Your task to perform on an android device: install app "Pluto TV - Live TV and Movies" Image 0: 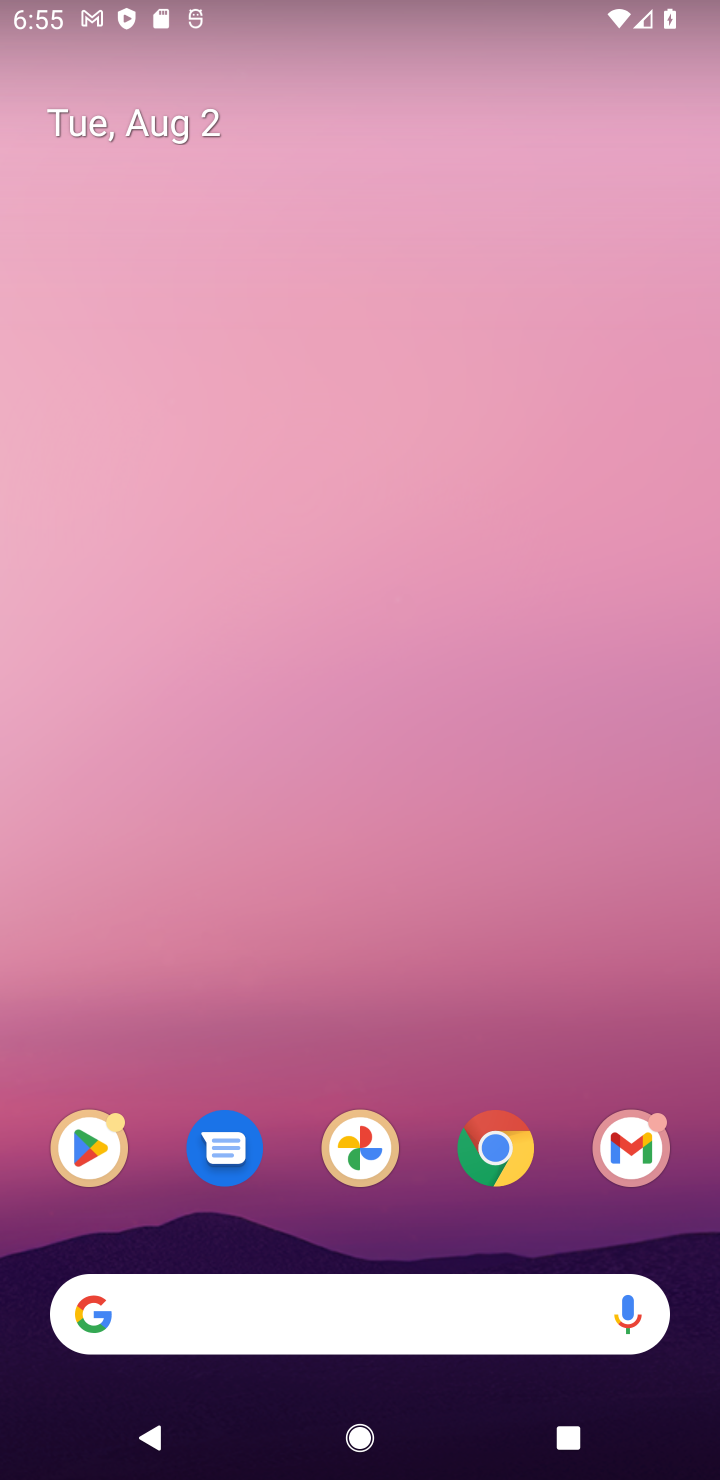
Step 0: drag from (543, 993) to (229, 31)
Your task to perform on an android device: install app "Pluto TV - Live TV and Movies" Image 1: 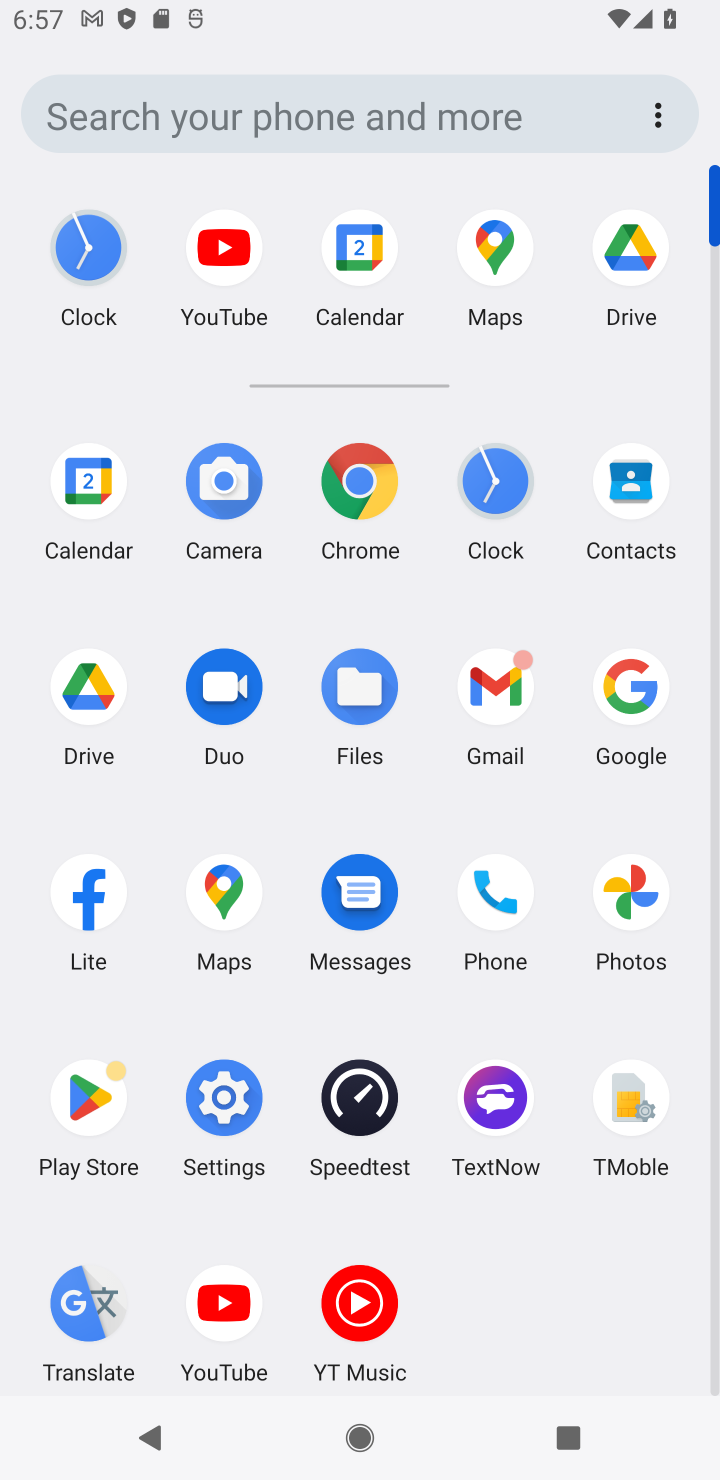
Step 1: click (88, 1091)
Your task to perform on an android device: install app "Pluto TV - Live TV and Movies" Image 2: 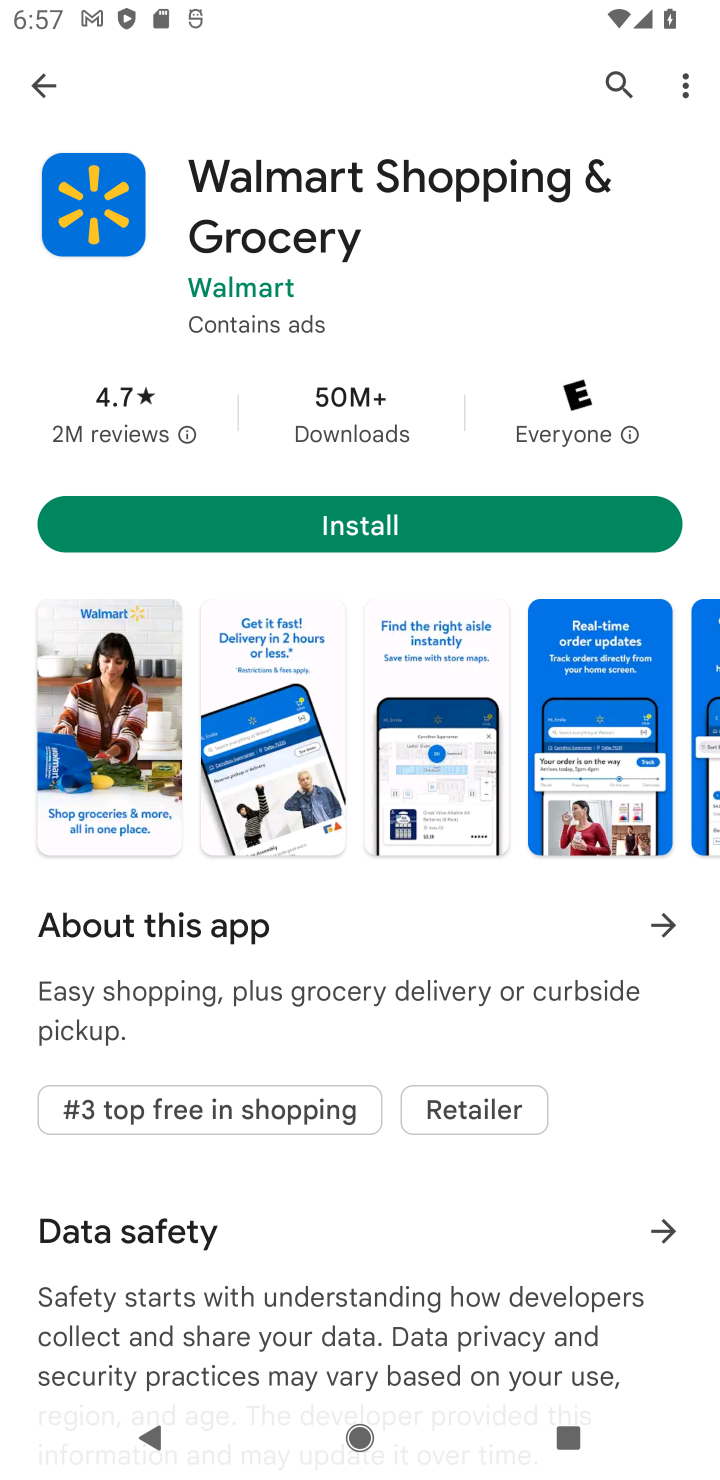
Step 2: press back button
Your task to perform on an android device: install app "Pluto TV - Live TV and Movies" Image 3: 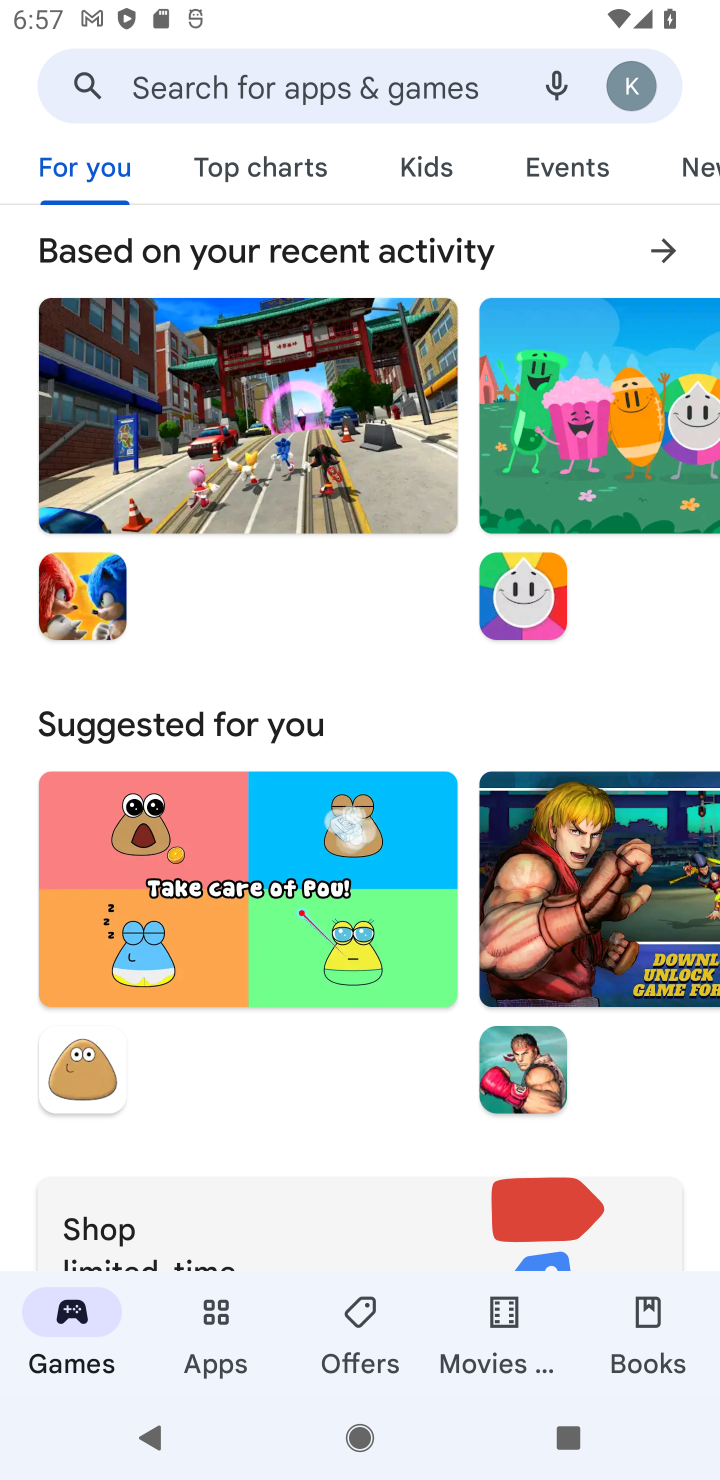
Step 3: click (289, 84)
Your task to perform on an android device: install app "Pluto TV - Live TV and Movies" Image 4: 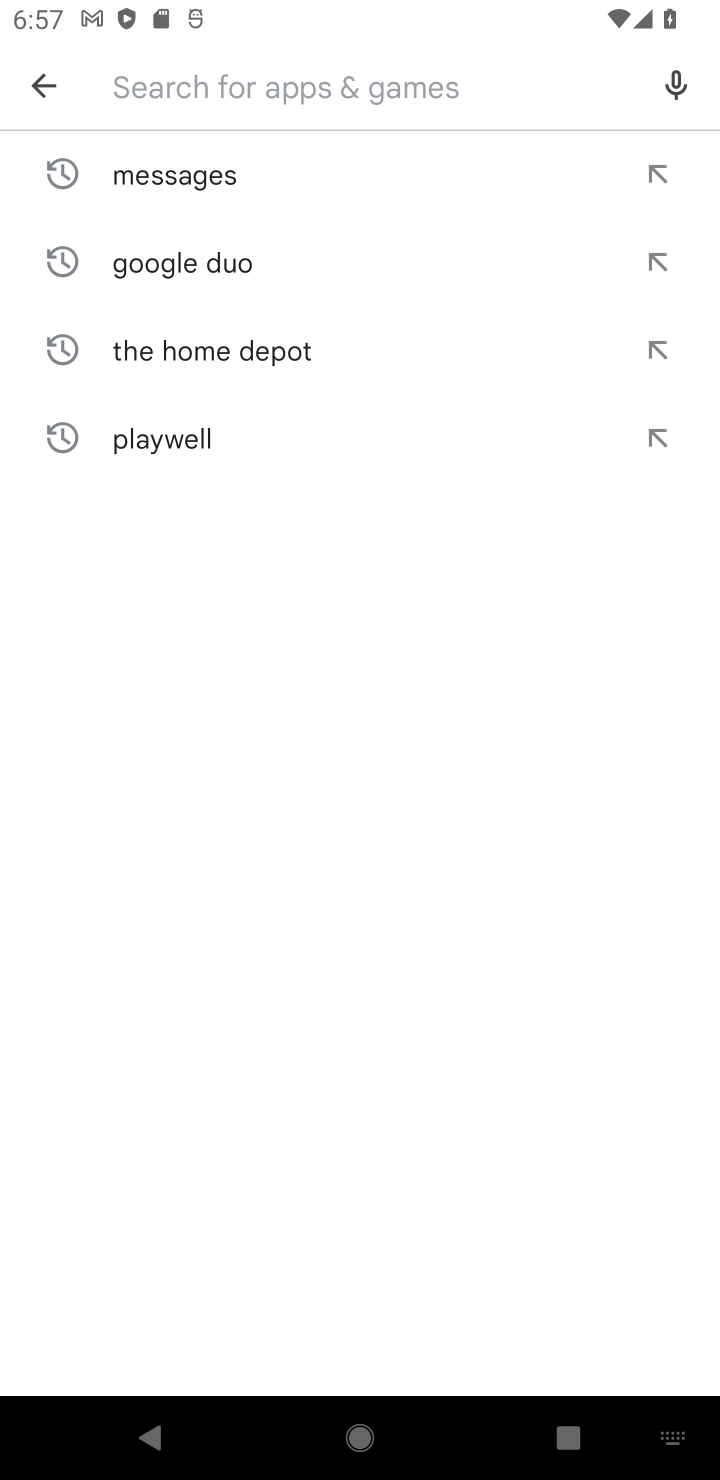
Step 4: type "Pluto TV - Live TV and Movies"
Your task to perform on an android device: install app "Pluto TV - Live TV and Movies" Image 5: 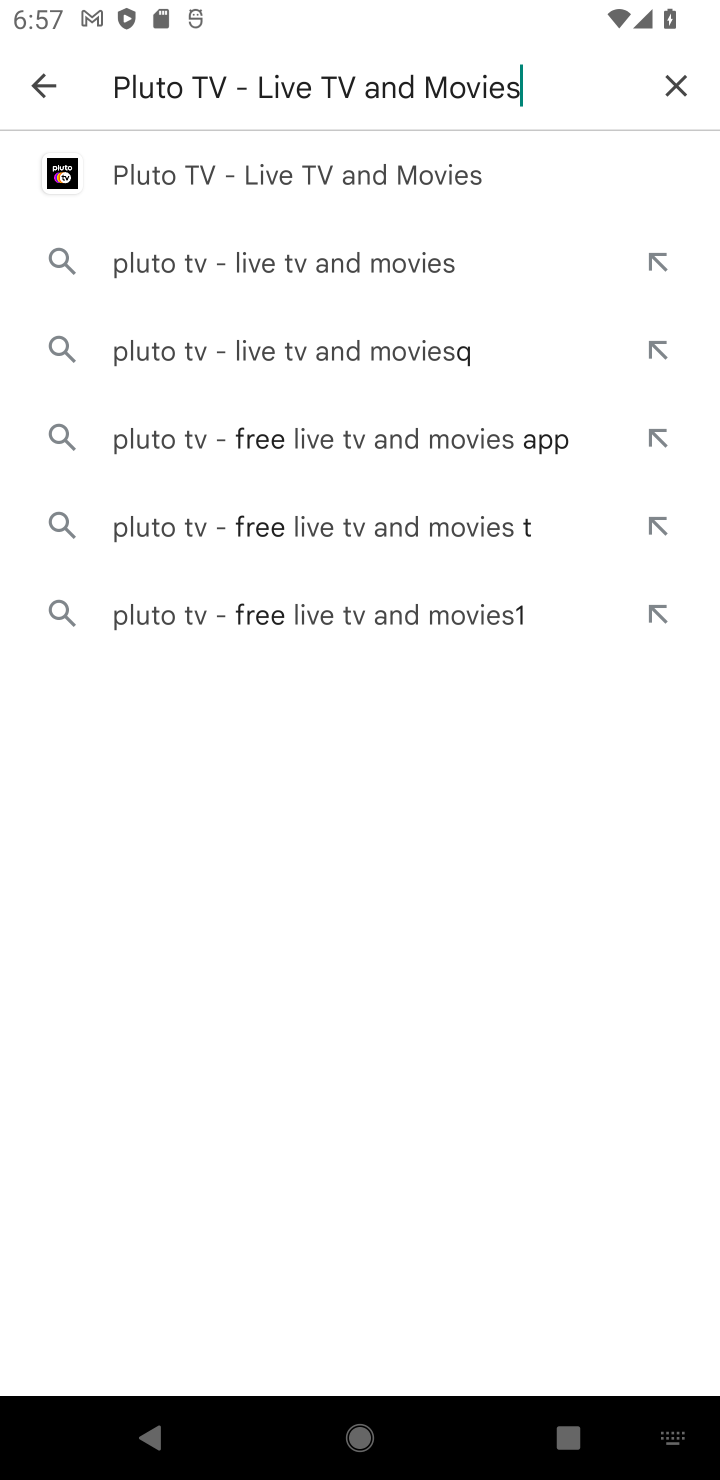
Step 5: click (224, 91)
Your task to perform on an android device: install app "Pluto TV - Live TV and Movies" Image 6: 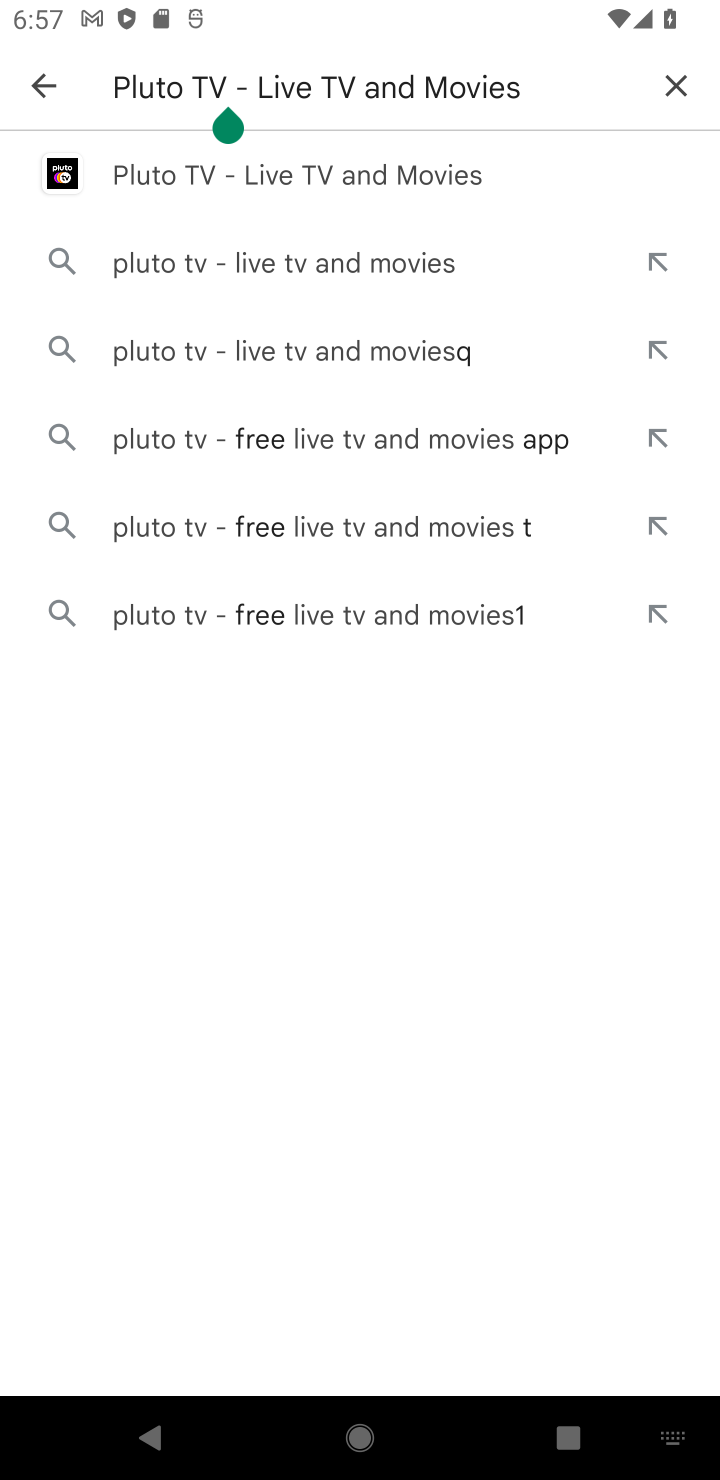
Step 6: click (326, 170)
Your task to perform on an android device: install app "Pluto TV - Live TV and Movies" Image 7: 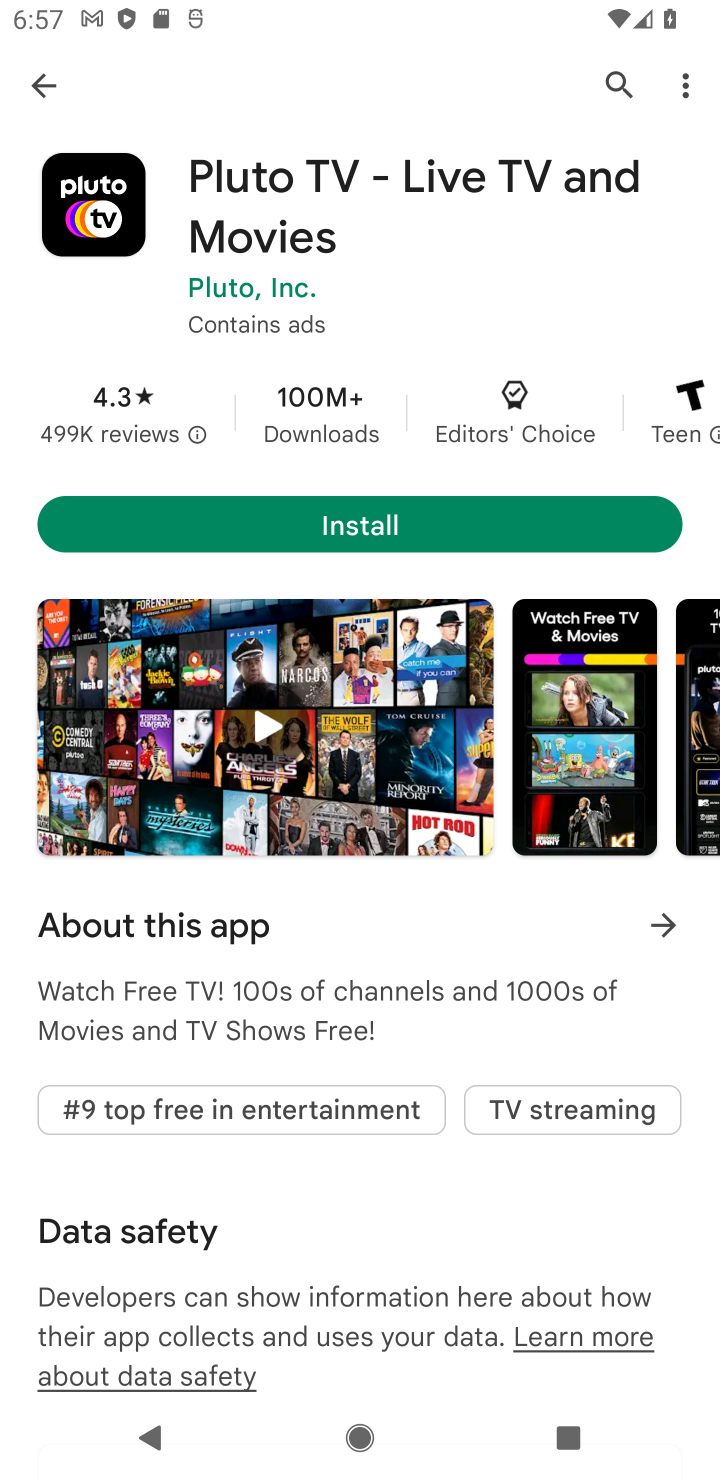
Step 7: click (274, 518)
Your task to perform on an android device: install app "Pluto TV - Live TV and Movies" Image 8: 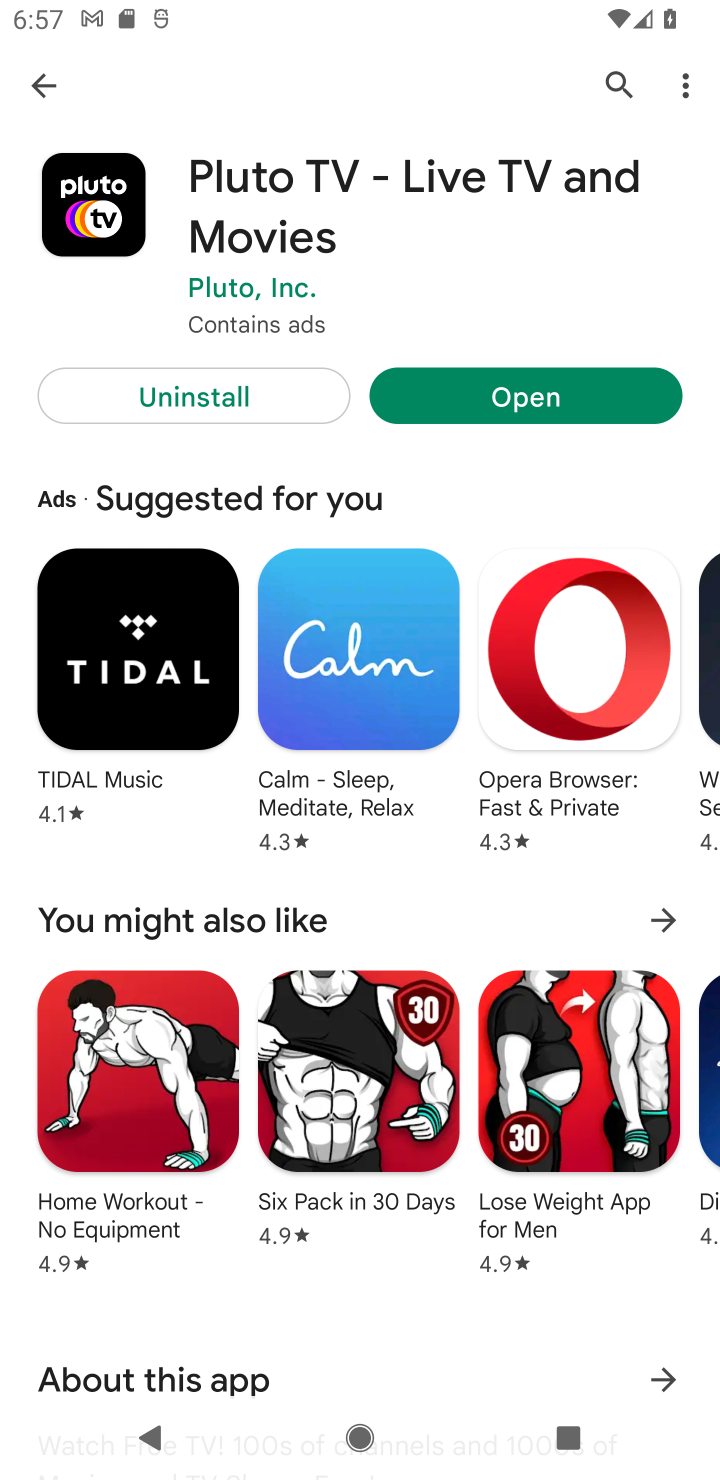
Step 8: task complete